Your task to perform on an android device: turn off translation in the chrome app Image 0: 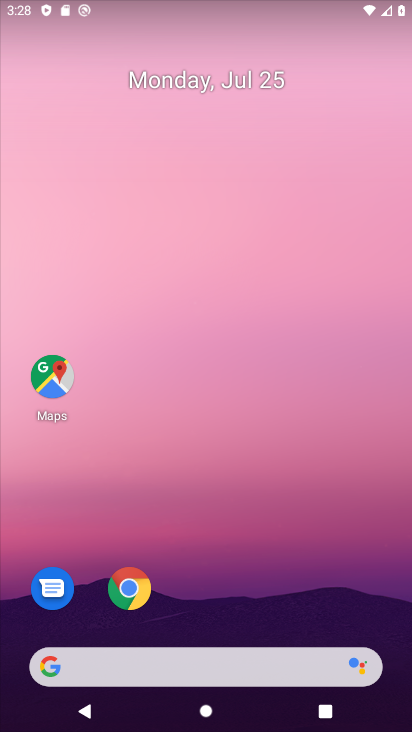
Step 0: drag from (243, 725) to (258, 0)
Your task to perform on an android device: turn off translation in the chrome app Image 1: 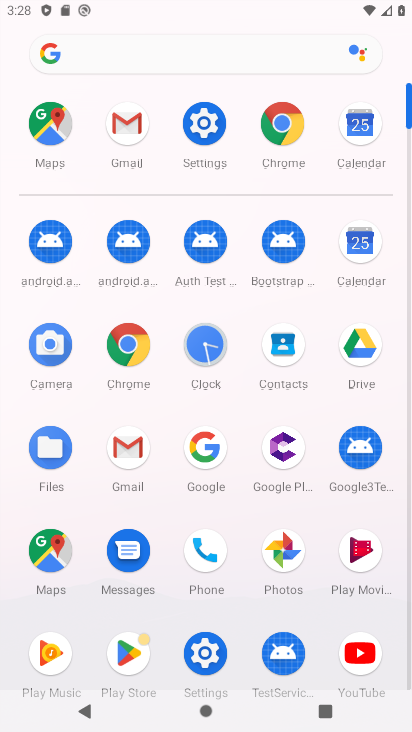
Step 1: click (119, 340)
Your task to perform on an android device: turn off translation in the chrome app Image 2: 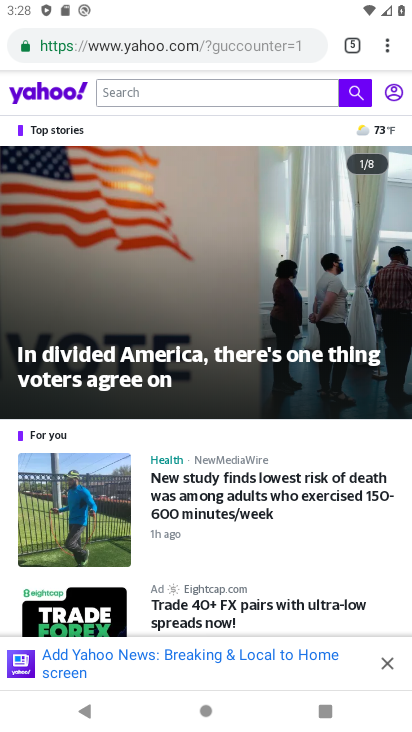
Step 2: click (386, 50)
Your task to perform on an android device: turn off translation in the chrome app Image 3: 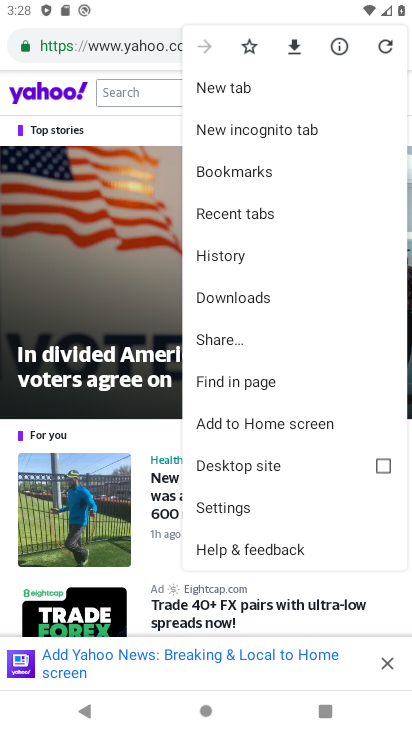
Step 3: click (223, 502)
Your task to perform on an android device: turn off translation in the chrome app Image 4: 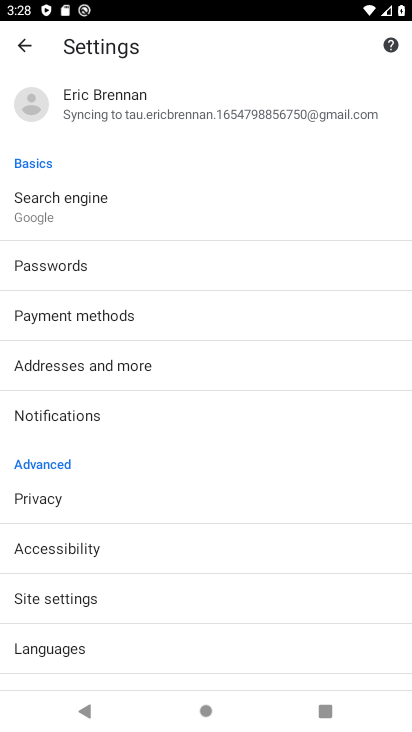
Step 4: drag from (115, 634) to (129, 306)
Your task to perform on an android device: turn off translation in the chrome app Image 5: 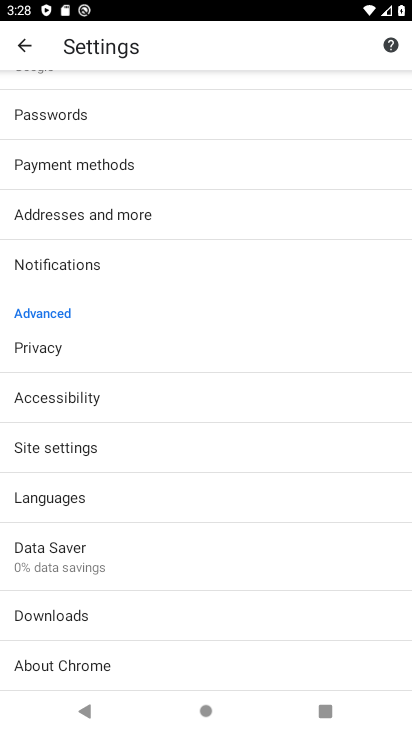
Step 5: click (47, 493)
Your task to perform on an android device: turn off translation in the chrome app Image 6: 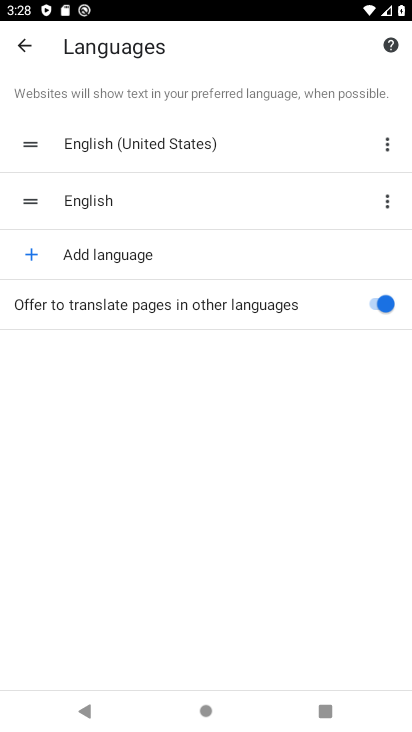
Step 6: click (386, 301)
Your task to perform on an android device: turn off translation in the chrome app Image 7: 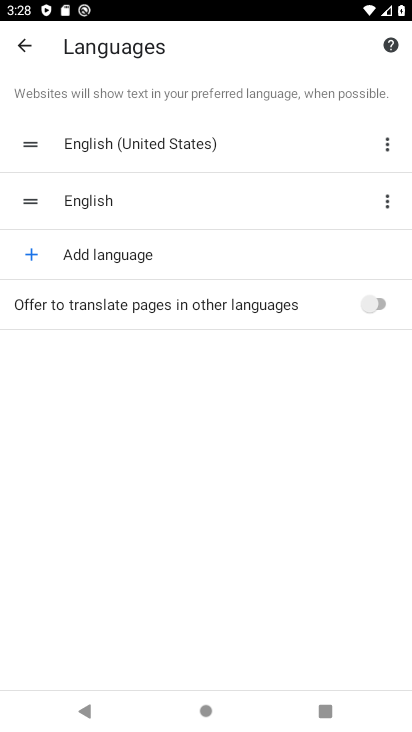
Step 7: task complete